Your task to perform on an android device: Open calendar and show me the first week of next month Image 0: 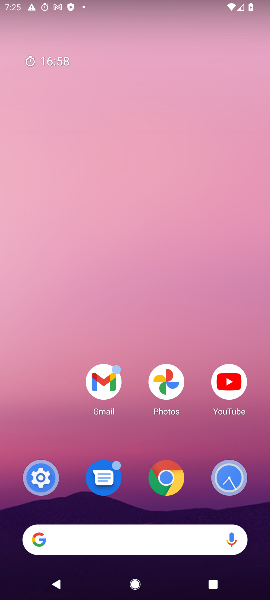
Step 0: drag from (154, 196) to (167, 154)
Your task to perform on an android device: Open calendar and show me the first week of next month Image 1: 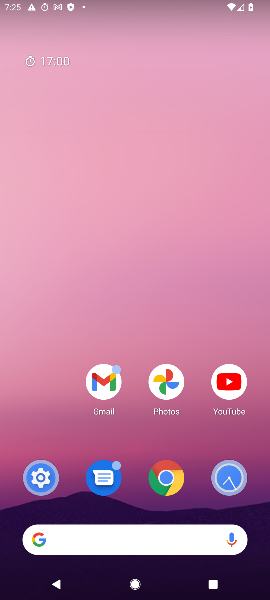
Step 1: drag from (140, 465) to (201, 125)
Your task to perform on an android device: Open calendar and show me the first week of next month Image 2: 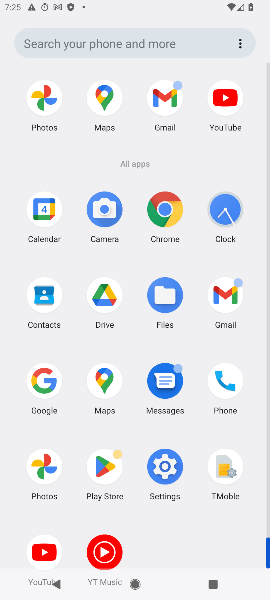
Step 2: drag from (129, 504) to (154, 193)
Your task to perform on an android device: Open calendar and show me the first week of next month Image 3: 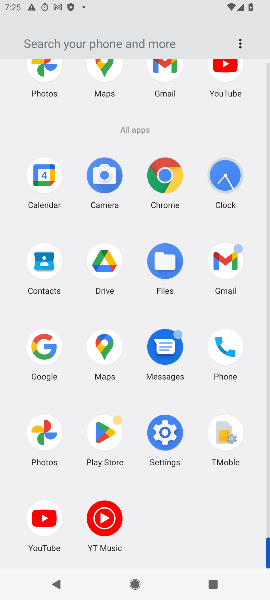
Step 3: click (43, 183)
Your task to perform on an android device: Open calendar and show me the first week of next month Image 4: 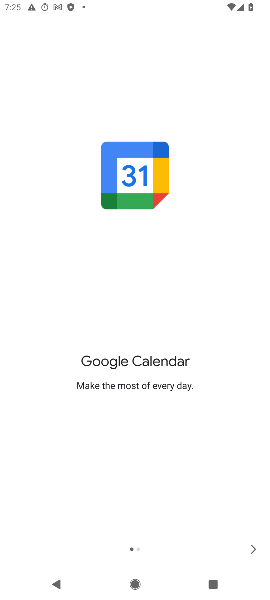
Step 4: click (249, 546)
Your task to perform on an android device: Open calendar and show me the first week of next month Image 5: 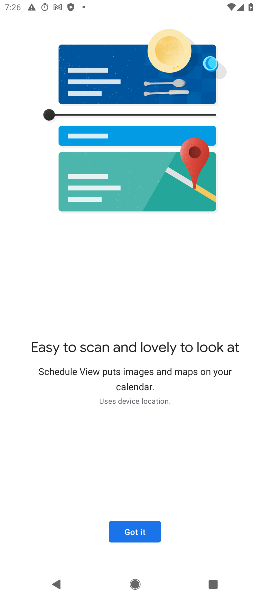
Step 5: click (137, 533)
Your task to perform on an android device: Open calendar and show me the first week of next month Image 6: 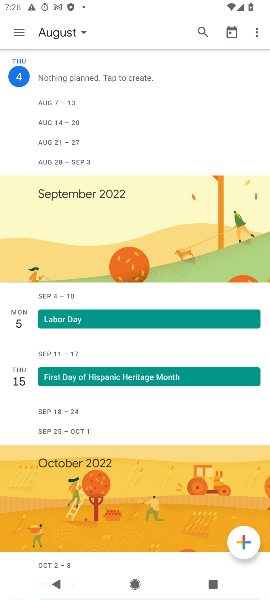
Step 6: click (65, 32)
Your task to perform on an android device: Open calendar and show me the first week of next month Image 7: 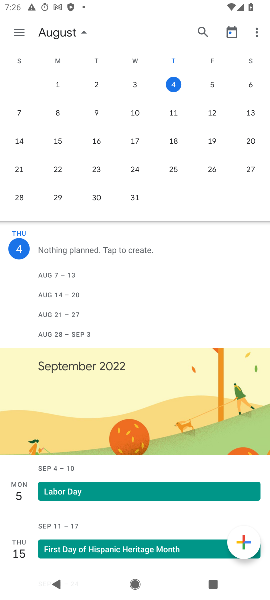
Step 7: drag from (229, 157) to (0, 126)
Your task to perform on an android device: Open calendar and show me the first week of next month Image 8: 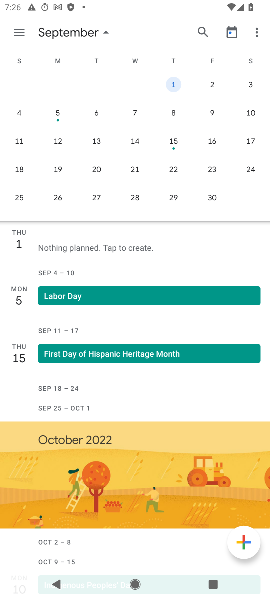
Step 8: click (211, 83)
Your task to perform on an android device: Open calendar and show me the first week of next month Image 9: 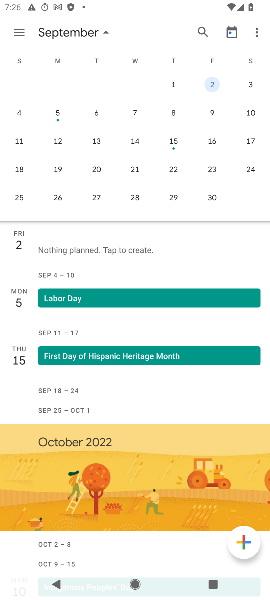
Step 9: task complete